Your task to perform on an android device: set default search engine in the chrome app Image 0: 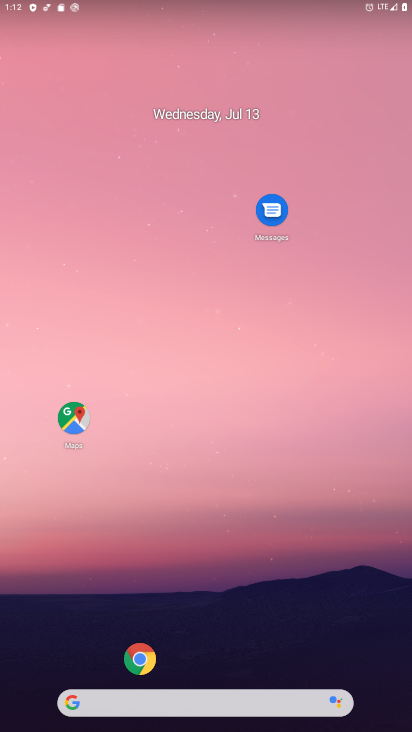
Step 0: drag from (30, 692) to (387, 383)
Your task to perform on an android device: set default search engine in the chrome app Image 1: 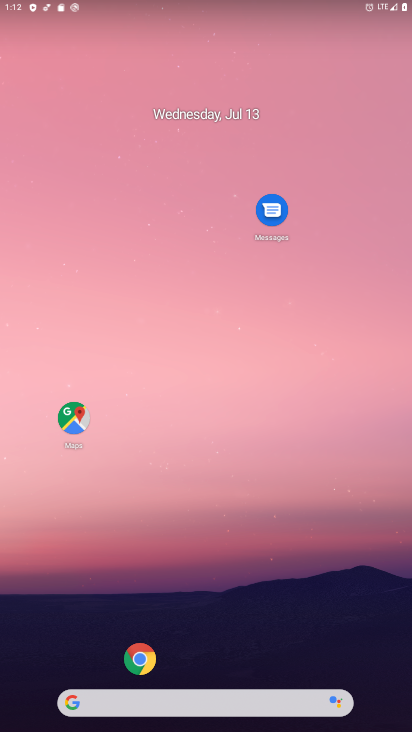
Step 1: drag from (113, 520) to (284, 25)
Your task to perform on an android device: set default search engine in the chrome app Image 2: 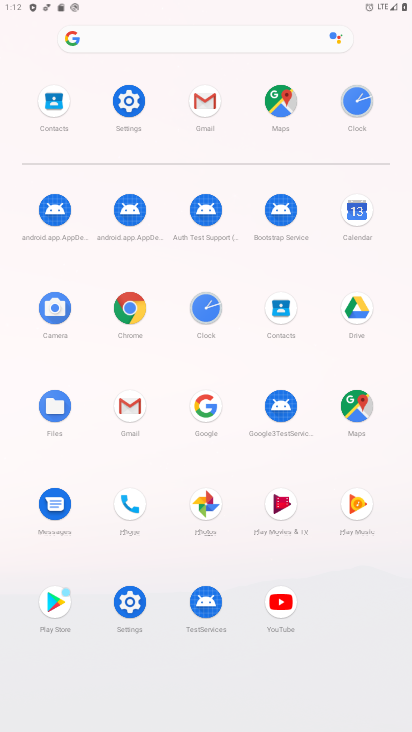
Step 2: click (135, 301)
Your task to perform on an android device: set default search engine in the chrome app Image 3: 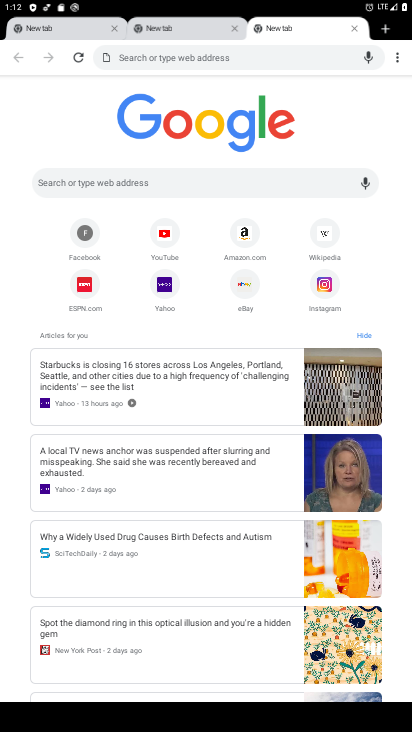
Step 3: click (395, 53)
Your task to perform on an android device: set default search engine in the chrome app Image 4: 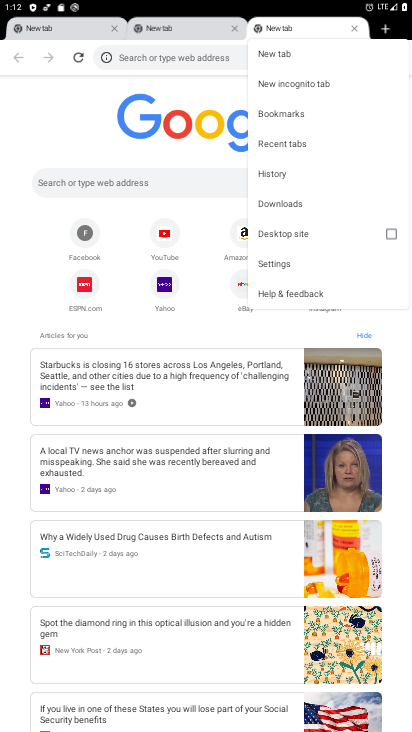
Step 4: click (292, 264)
Your task to perform on an android device: set default search engine in the chrome app Image 5: 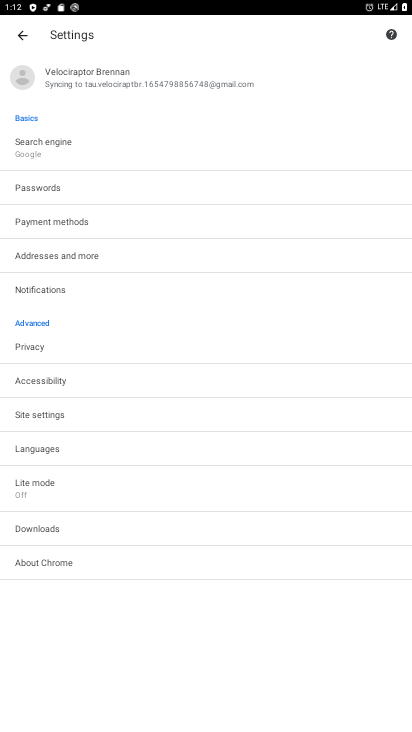
Step 5: click (40, 145)
Your task to perform on an android device: set default search engine in the chrome app Image 6: 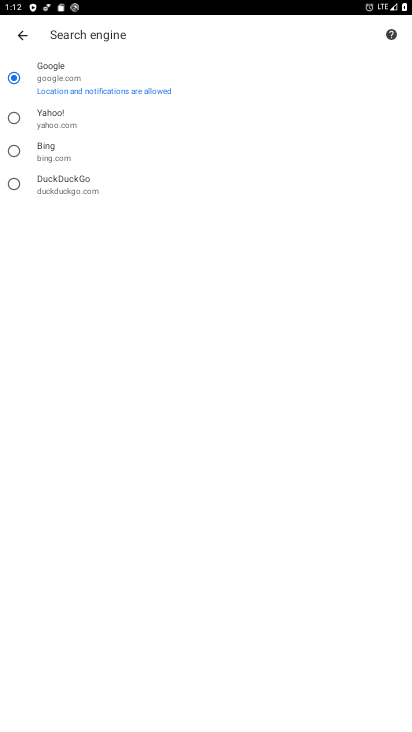
Step 6: task complete